Your task to perform on an android device: Show me popular videos on Youtube Image 0: 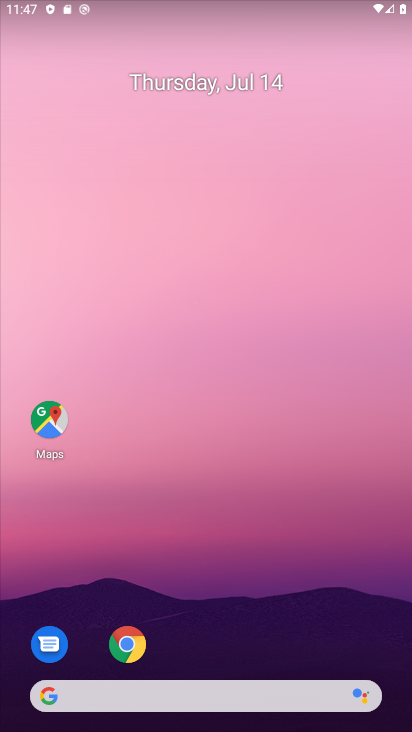
Step 0: drag from (183, 671) to (262, 44)
Your task to perform on an android device: Show me popular videos on Youtube Image 1: 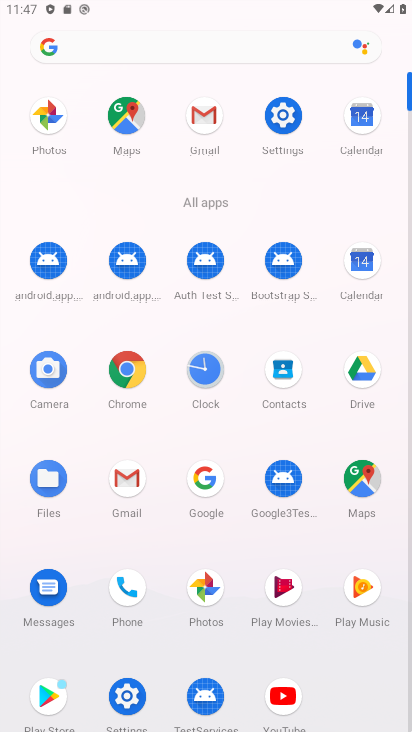
Step 1: click (282, 687)
Your task to perform on an android device: Show me popular videos on Youtube Image 2: 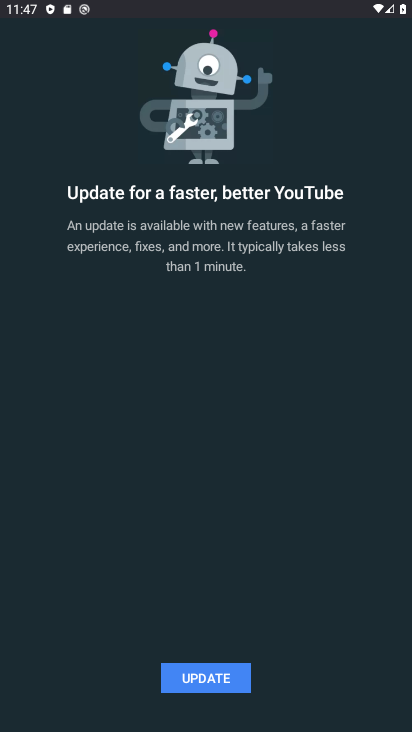
Step 2: click (244, 687)
Your task to perform on an android device: Show me popular videos on Youtube Image 3: 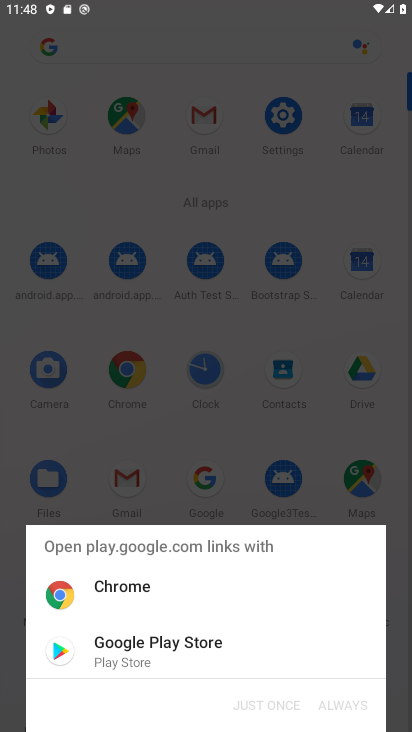
Step 3: click (207, 663)
Your task to perform on an android device: Show me popular videos on Youtube Image 4: 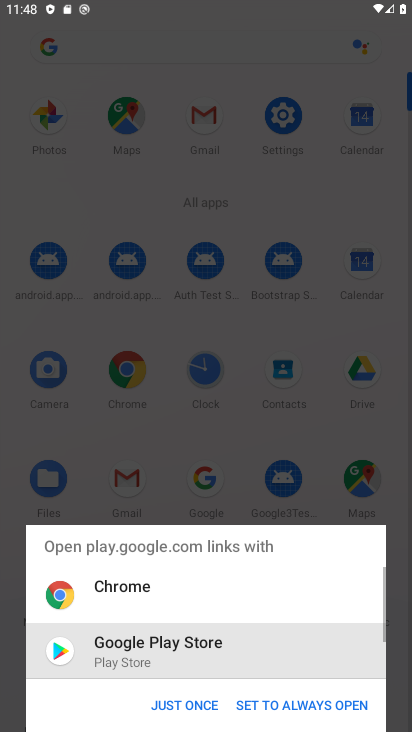
Step 4: click (205, 701)
Your task to perform on an android device: Show me popular videos on Youtube Image 5: 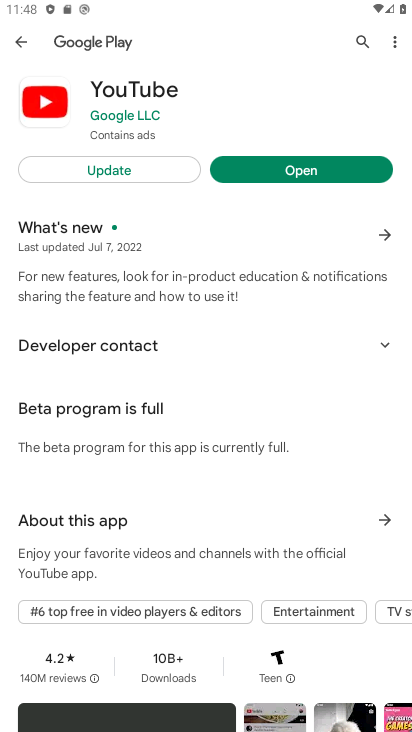
Step 5: click (134, 161)
Your task to perform on an android device: Show me popular videos on Youtube Image 6: 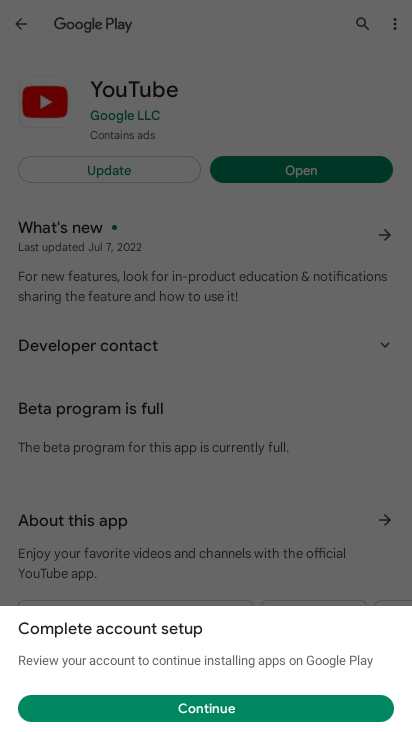
Step 6: click (193, 695)
Your task to perform on an android device: Show me popular videos on Youtube Image 7: 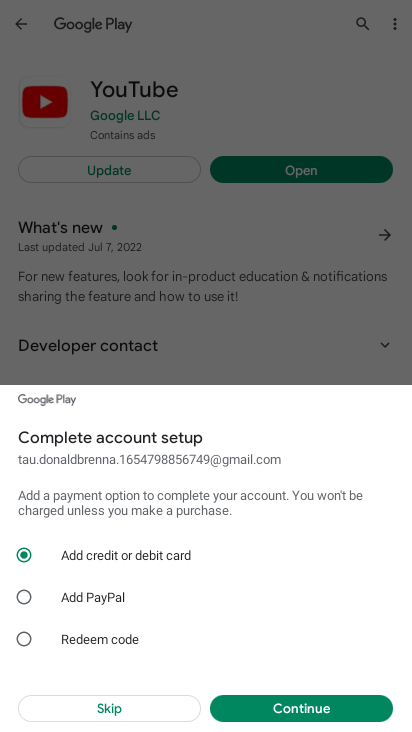
Step 7: click (154, 703)
Your task to perform on an android device: Show me popular videos on Youtube Image 8: 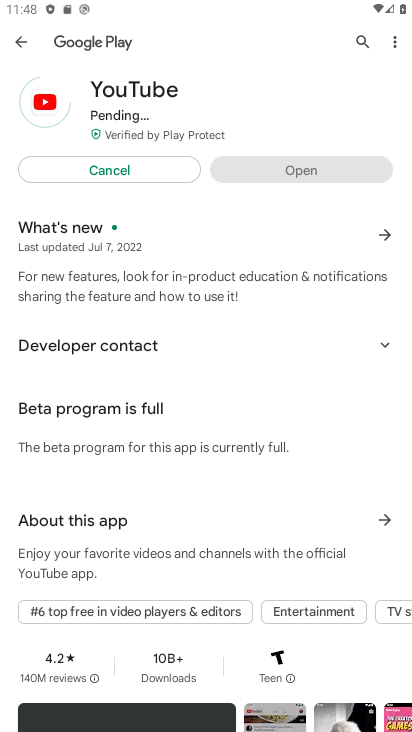
Step 8: click (137, 161)
Your task to perform on an android device: Show me popular videos on Youtube Image 9: 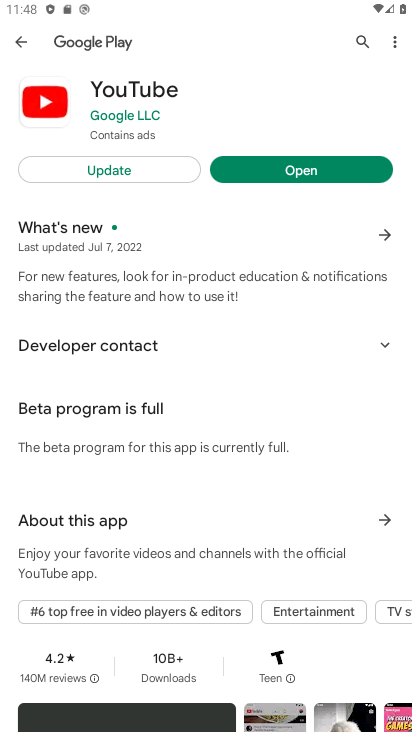
Step 9: click (137, 161)
Your task to perform on an android device: Show me popular videos on Youtube Image 10: 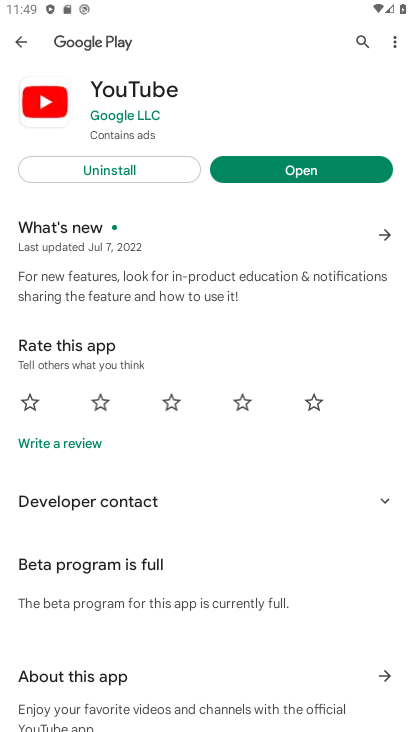
Step 10: click (244, 176)
Your task to perform on an android device: Show me popular videos on Youtube Image 11: 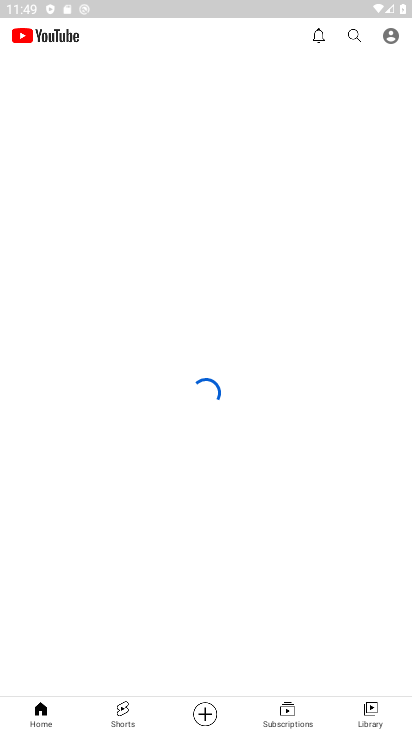
Step 11: click (361, 715)
Your task to perform on an android device: Show me popular videos on Youtube Image 12: 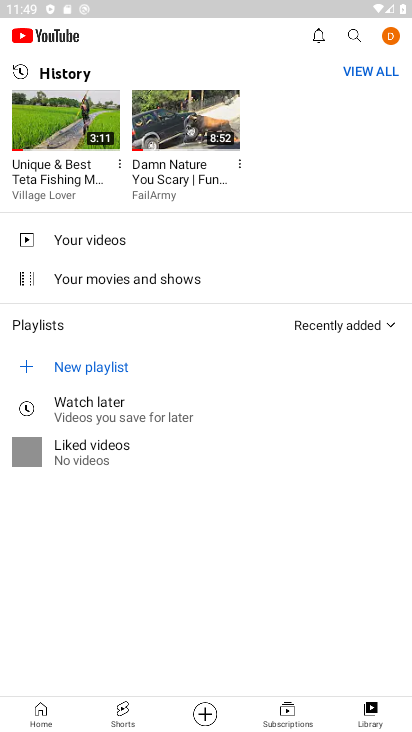
Step 12: click (378, 68)
Your task to perform on an android device: Show me popular videos on Youtube Image 13: 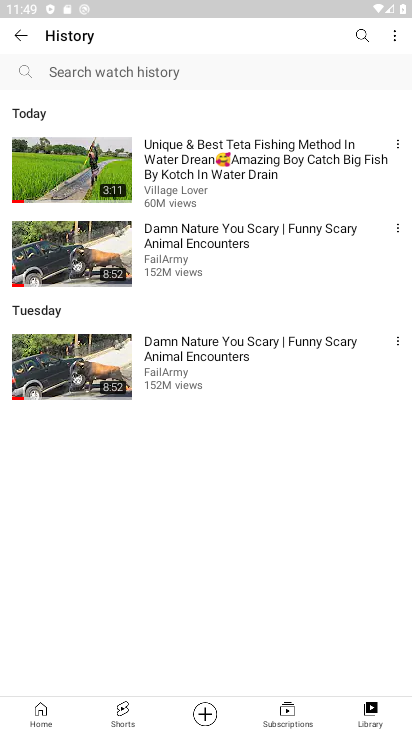
Step 13: task complete